Your task to perform on an android device: turn off data saver in the chrome app Image 0: 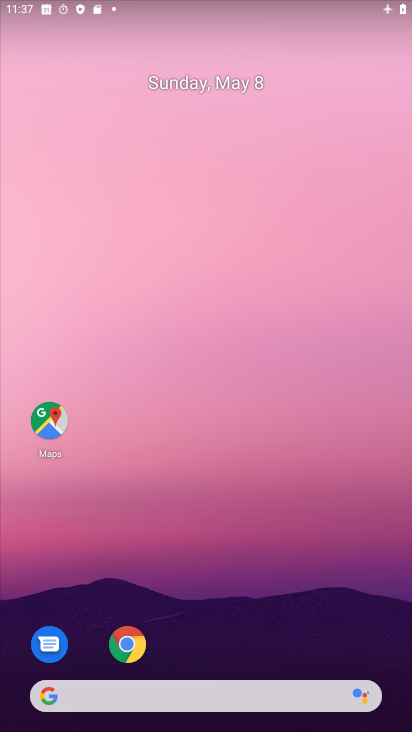
Step 0: drag from (195, 627) to (262, 161)
Your task to perform on an android device: turn off data saver in the chrome app Image 1: 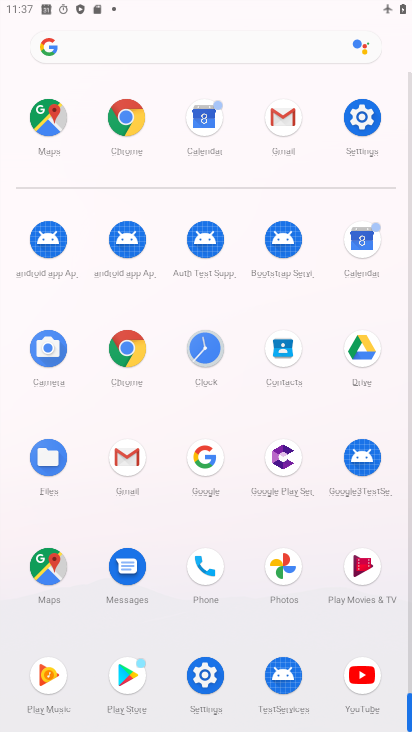
Step 1: drag from (218, 608) to (244, 187)
Your task to perform on an android device: turn off data saver in the chrome app Image 2: 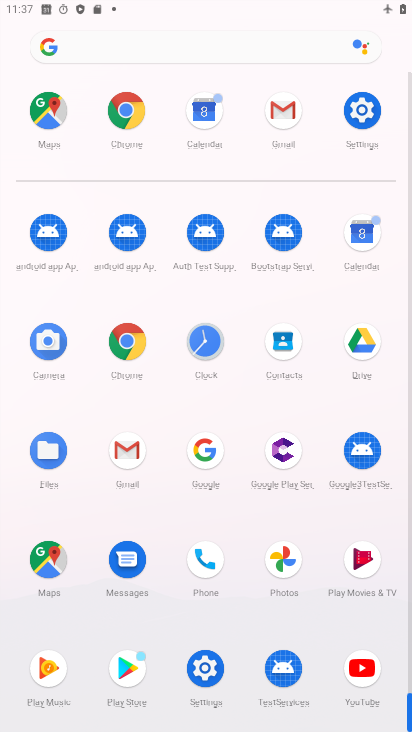
Step 2: click (114, 319)
Your task to perform on an android device: turn off data saver in the chrome app Image 3: 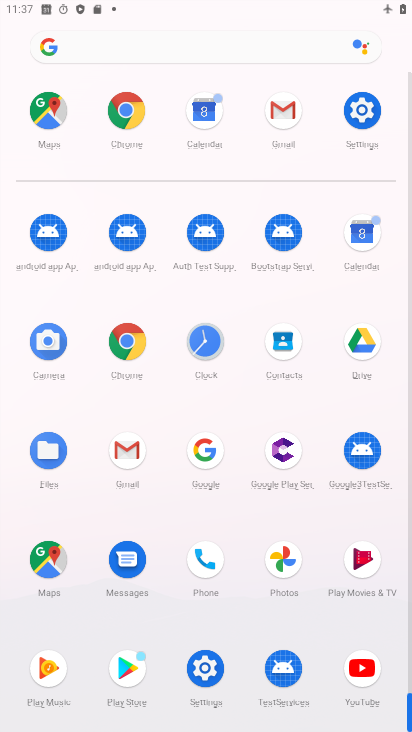
Step 3: click (116, 322)
Your task to perform on an android device: turn off data saver in the chrome app Image 4: 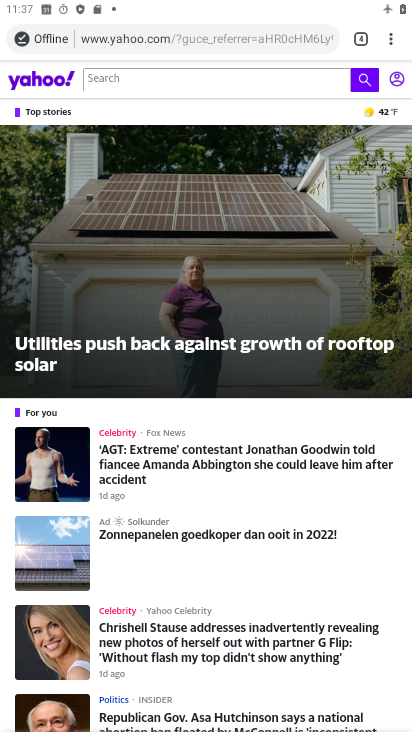
Step 4: drag from (387, 36) to (271, 479)
Your task to perform on an android device: turn off data saver in the chrome app Image 5: 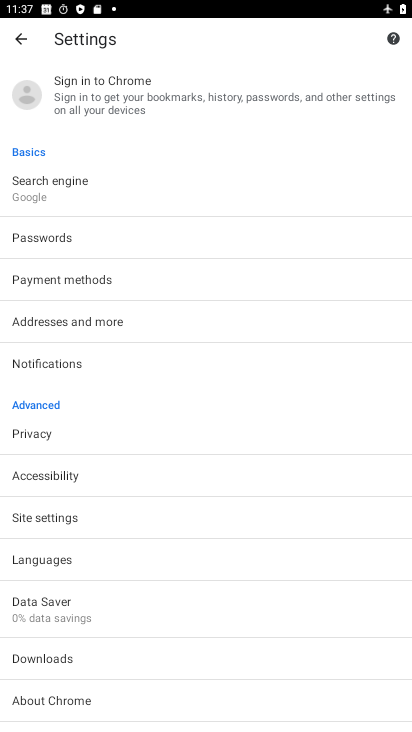
Step 5: drag from (166, 650) to (245, 194)
Your task to perform on an android device: turn off data saver in the chrome app Image 6: 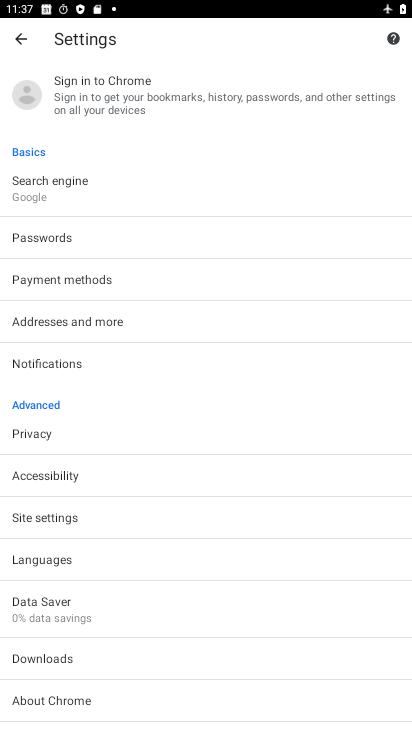
Step 6: click (76, 605)
Your task to perform on an android device: turn off data saver in the chrome app Image 7: 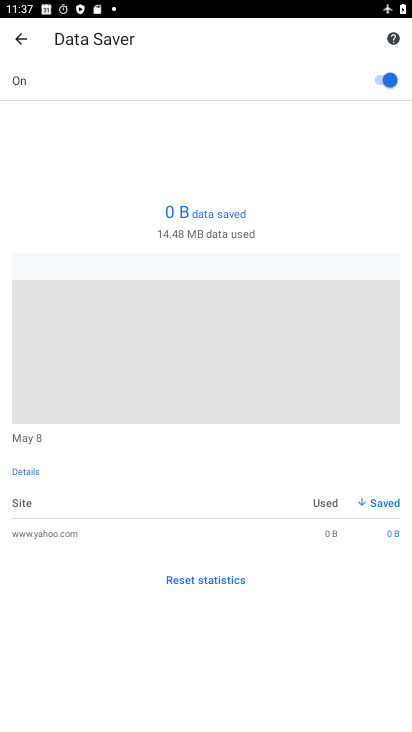
Step 7: click (382, 78)
Your task to perform on an android device: turn off data saver in the chrome app Image 8: 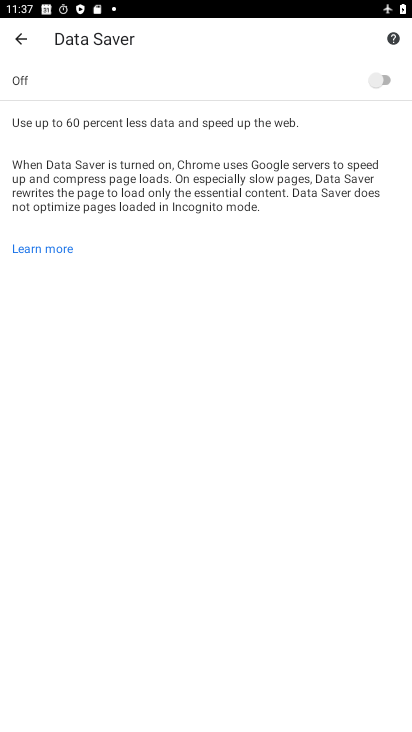
Step 8: task complete